Your task to perform on an android device: empty trash in the gmail app Image 0: 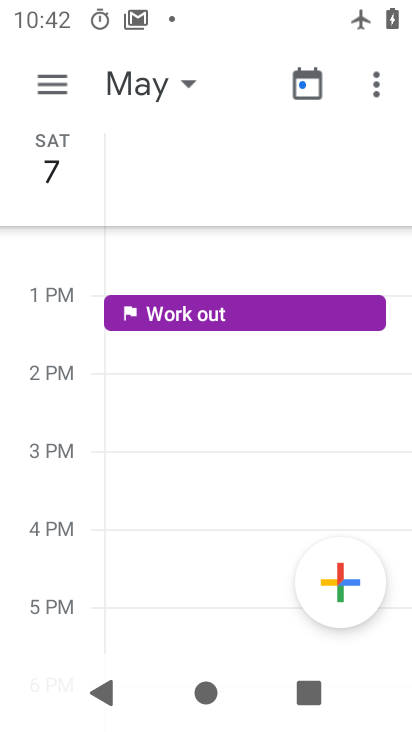
Step 0: press home button
Your task to perform on an android device: empty trash in the gmail app Image 1: 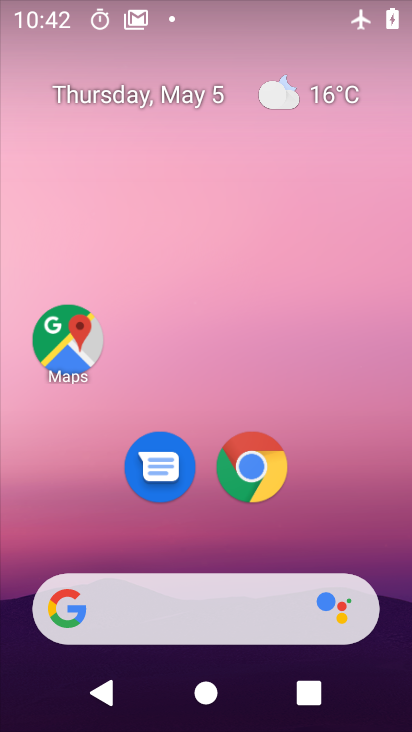
Step 1: drag from (210, 466) to (241, 38)
Your task to perform on an android device: empty trash in the gmail app Image 2: 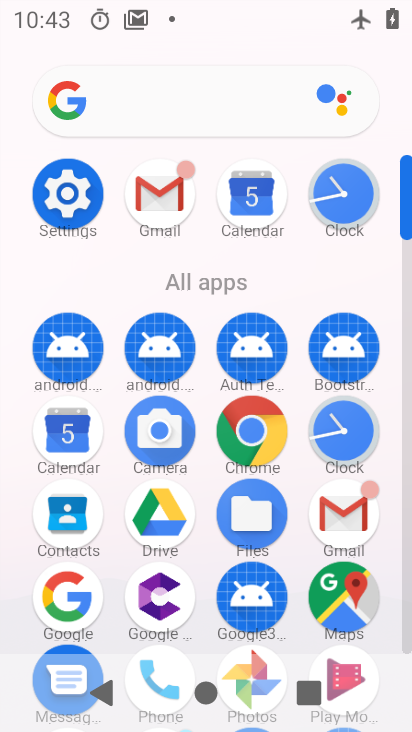
Step 2: click (148, 170)
Your task to perform on an android device: empty trash in the gmail app Image 3: 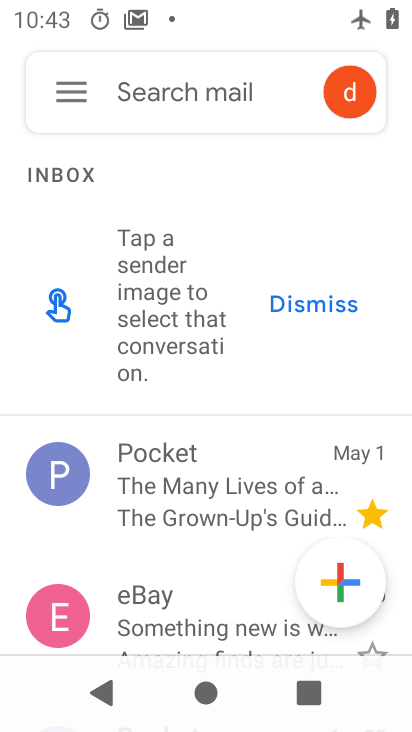
Step 3: click (74, 103)
Your task to perform on an android device: empty trash in the gmail app Image 4: 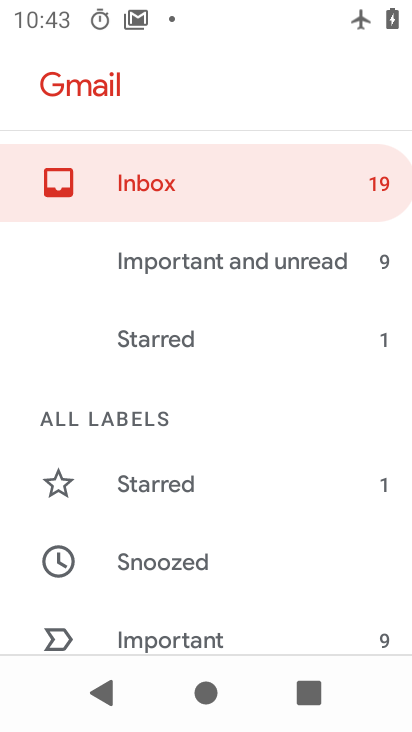
Step 4: drag from (223, 576) to (256, 145)
Your task to perform on an android device: empty trash in the gmail app Image 5: 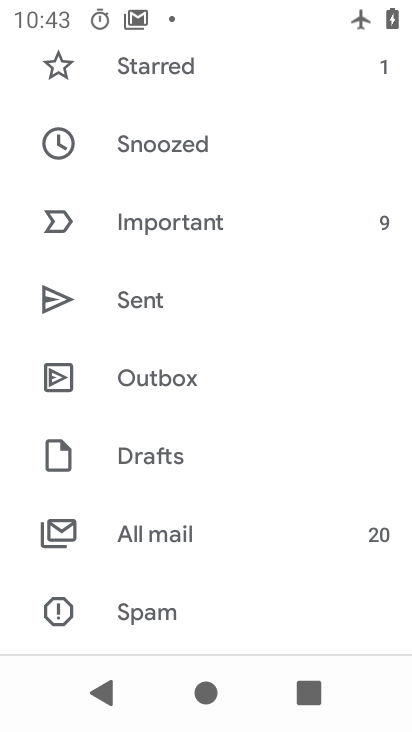
Step 5: drag from (217, 566) to (247, 226)
Your task to perform on an android device: empty trash in the gmail app Image 6: 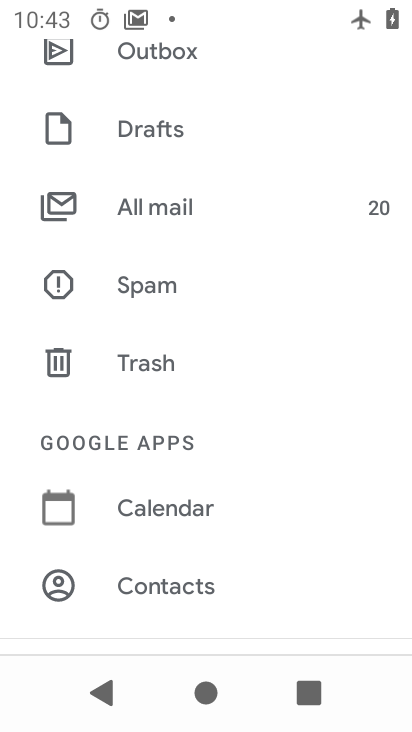
Step 6: click (198, 359)
Your task to perform on an android device: empty trash in the gmail app Image 7: 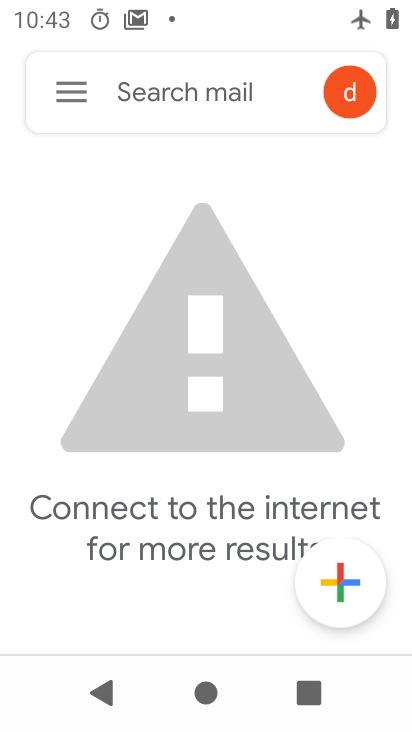
Step 7: task complete